Your task to perform on an android device: allow cookies in the chrome app Image 0: 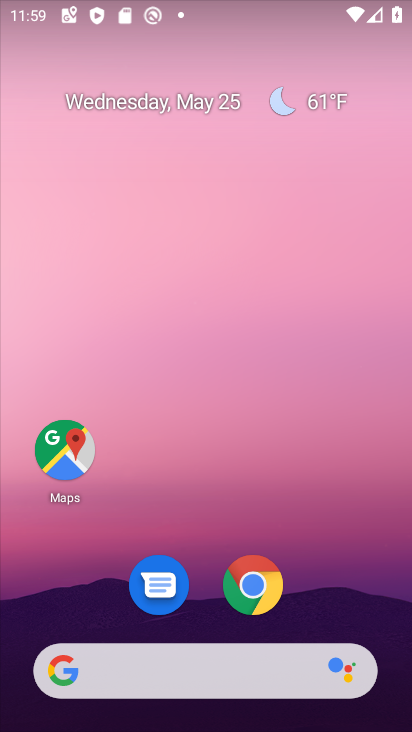
Step 0: click (270, 575)
Your task to perform on an android device: allow cookies in the chrome app Image 1: 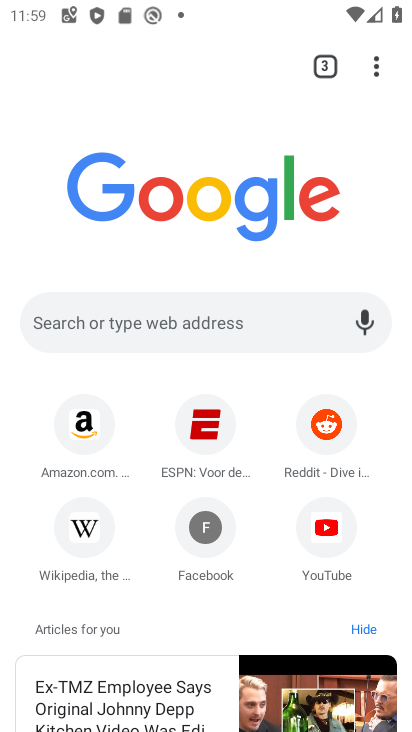
Step 1: click (371, 73)
Your task to perform on an android device: allow cookies in the chrome app Image 2: 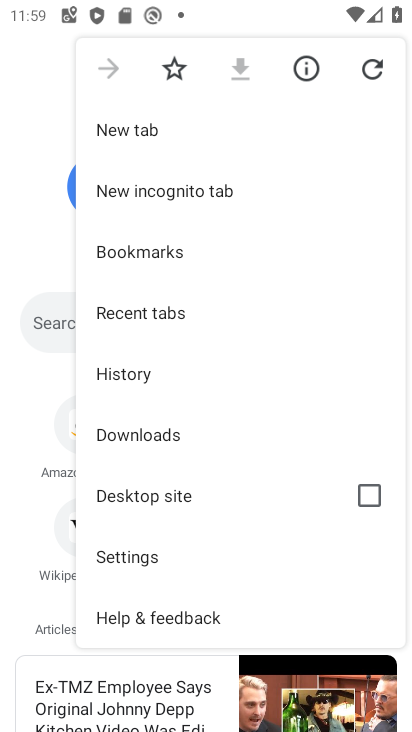
Step 2: click (147, 549)
Your task to perform on an android device: allow cookies in the chrome app Image 3: 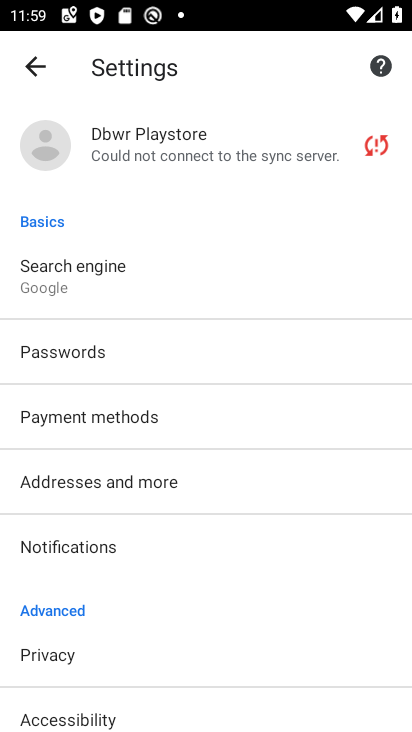
Step 3: drag from (181, 603) to (214, 367)
Your task to perform on an android device: allow cookies in the chrome app Image 4: 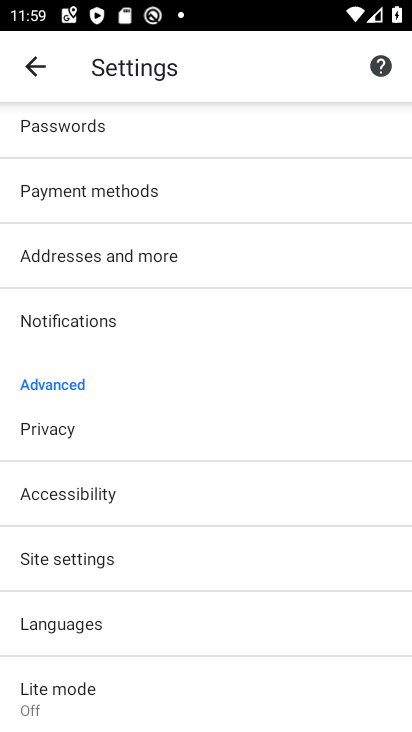
Step 4: click (162, 560)
Your task to perform on an android device: allow cookies in the chrome app Image 5: 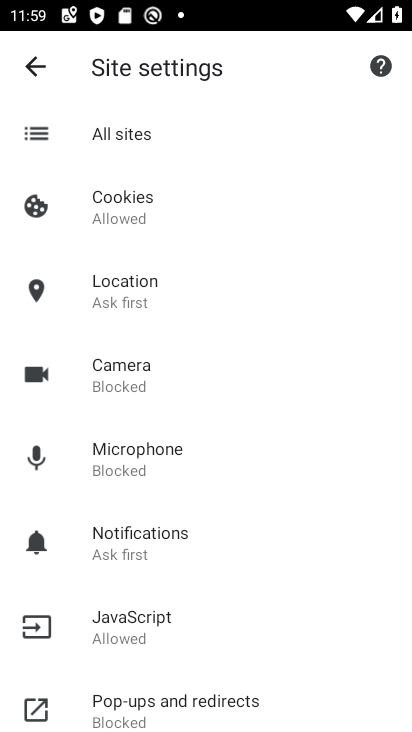
Step 5: drag from (217, 622) to (221, 536)
Your task to perform on an android device: allow cookies in the chrome app Image 6: 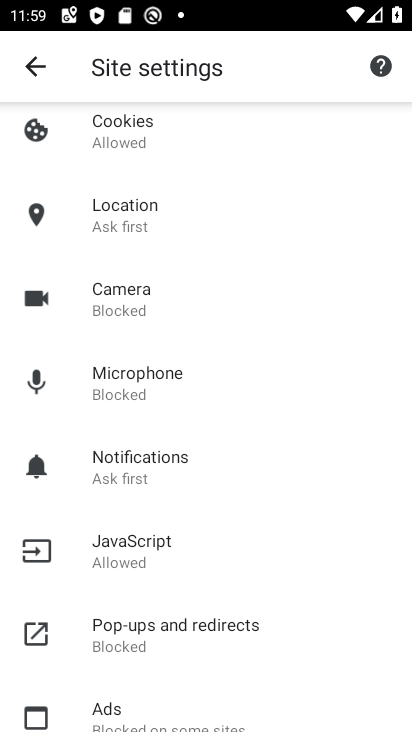
Step 6: click (239, 125)
Your task to perform on an android device: allow cookies in the chrome app Image 7: 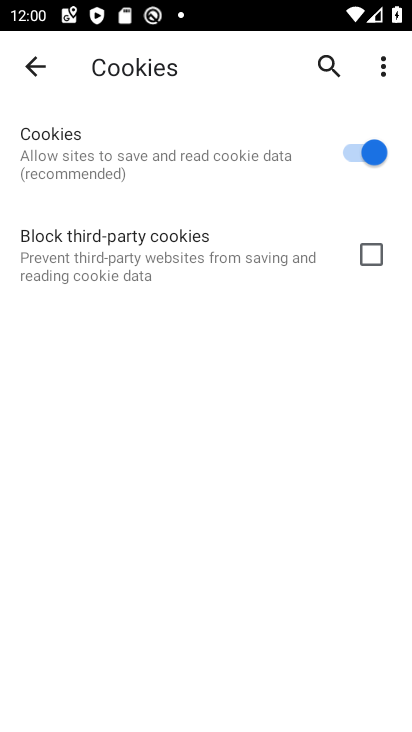
Step 7: task complete